Your task to perform on an android device: Clear the cart on target.com. Search for logitech g903 on target.com, select the first entry, and add it to the cart. Image 0: 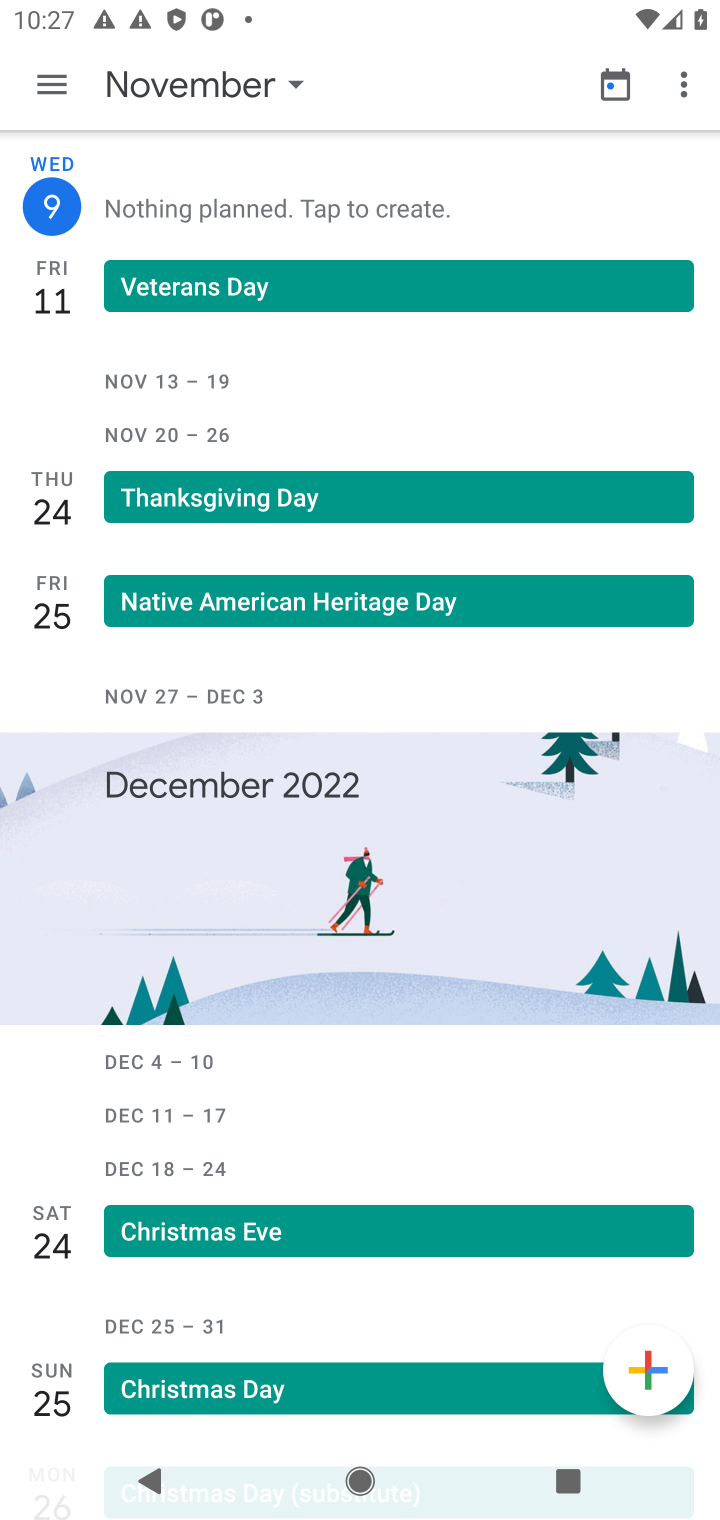
Step 0: press home button
Your task to perform on an android device: Clear the cart on target.com. Search for logitech g903 on target.com, select the first entry, and add it to the cart. Image 1: 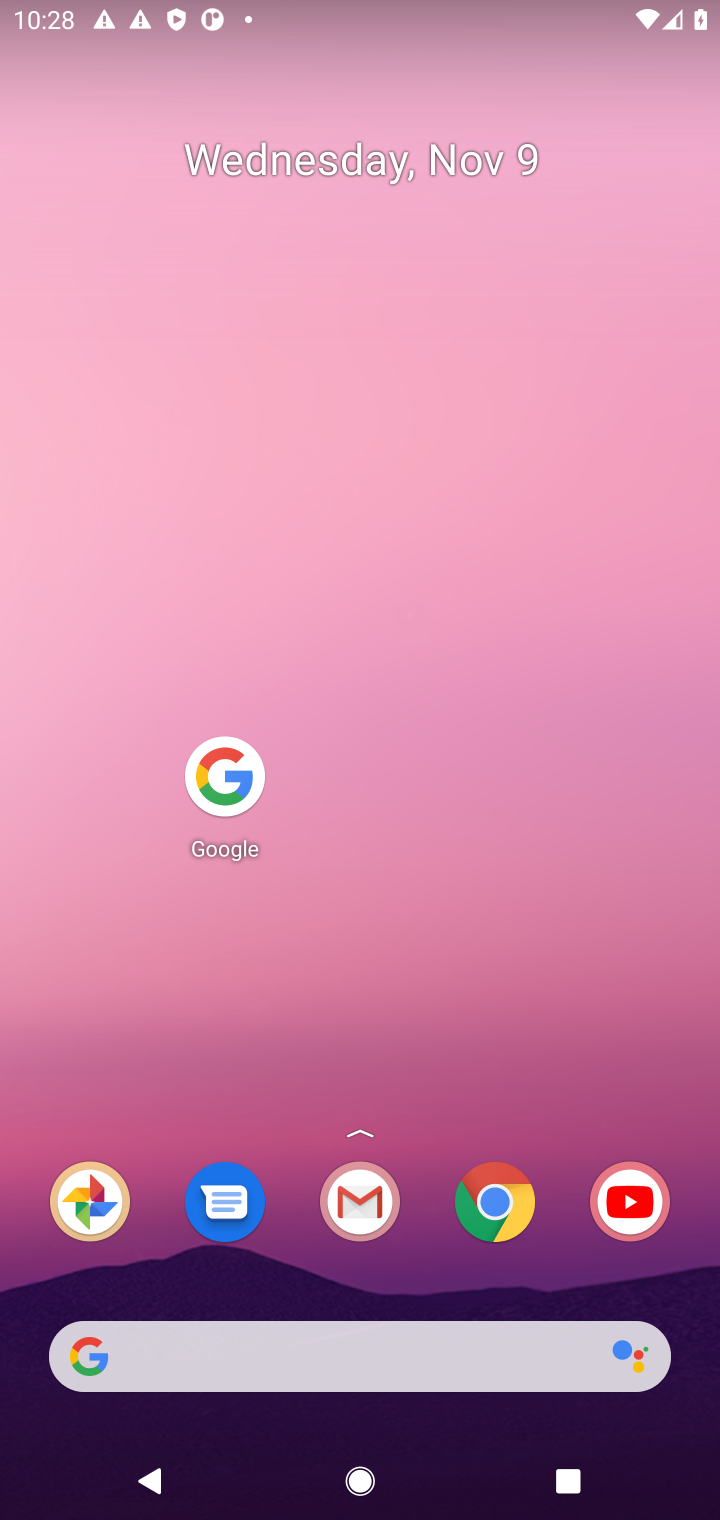
Step 1: click (229, 773)
Your task to perform on an android device: Clear the cart on target.com. Search for logitech g903 on target.com, select the first entry, and add it to the cart. Image 2: 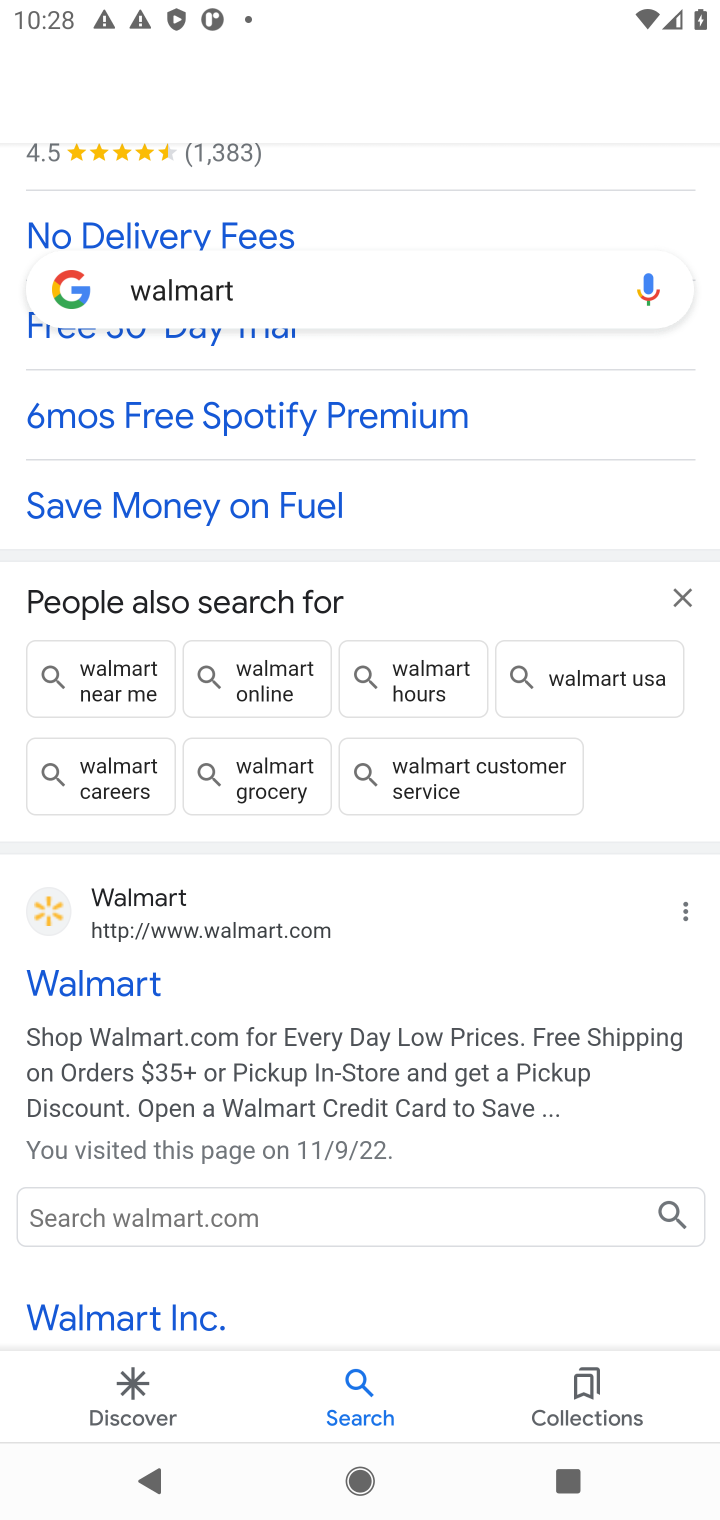
Step 2: drag from (400, 505) to (285, 1196)
Your task to perform on an android device: Clear the cart on target.com. Search for logitech g903 on target.com, select the first entry, and add it to the cart. Image 3: 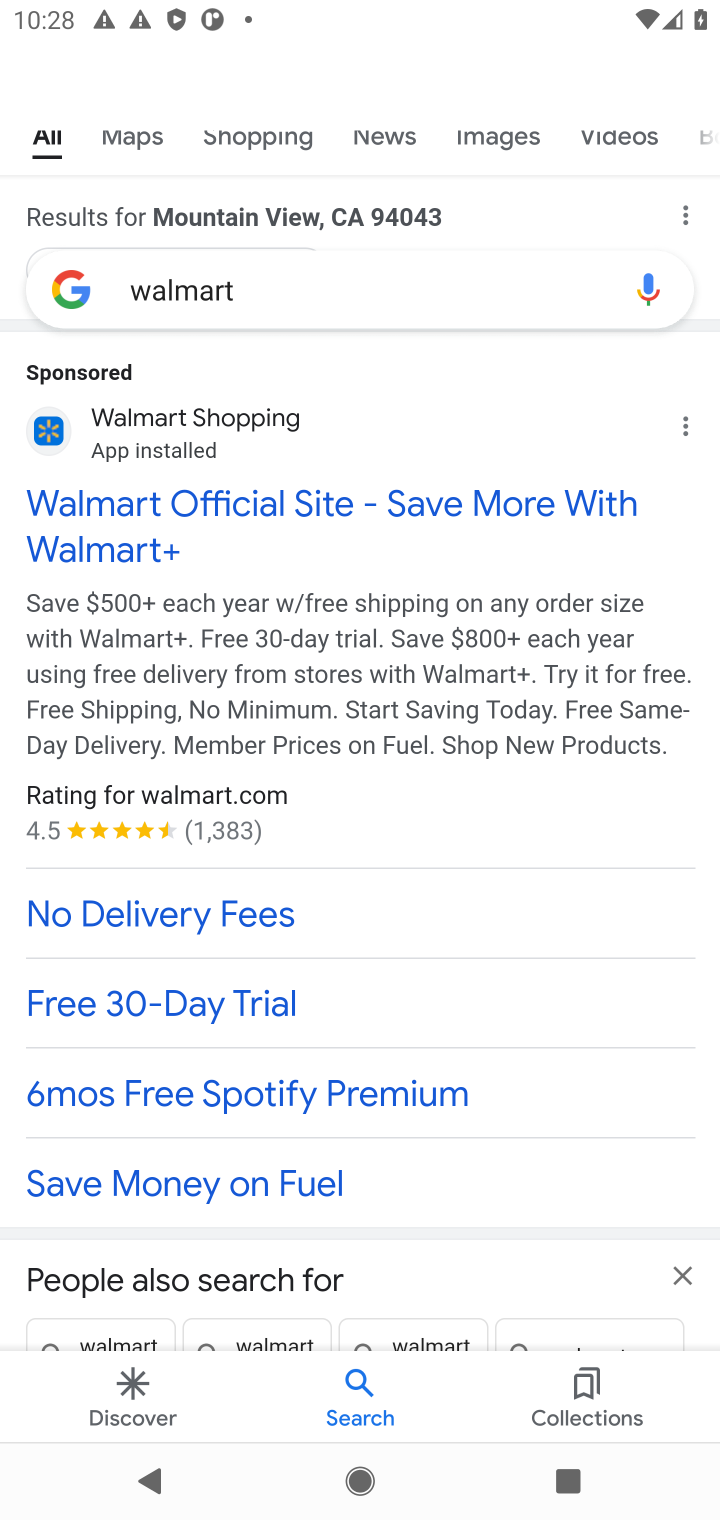
Step 3: drag from (361, 306) to (273, 936)
Your task to perform on an android device: Clear the cart on target.com. Search for logitech g903 on target.com, select the first entry, and add it to the cart. Image 4: 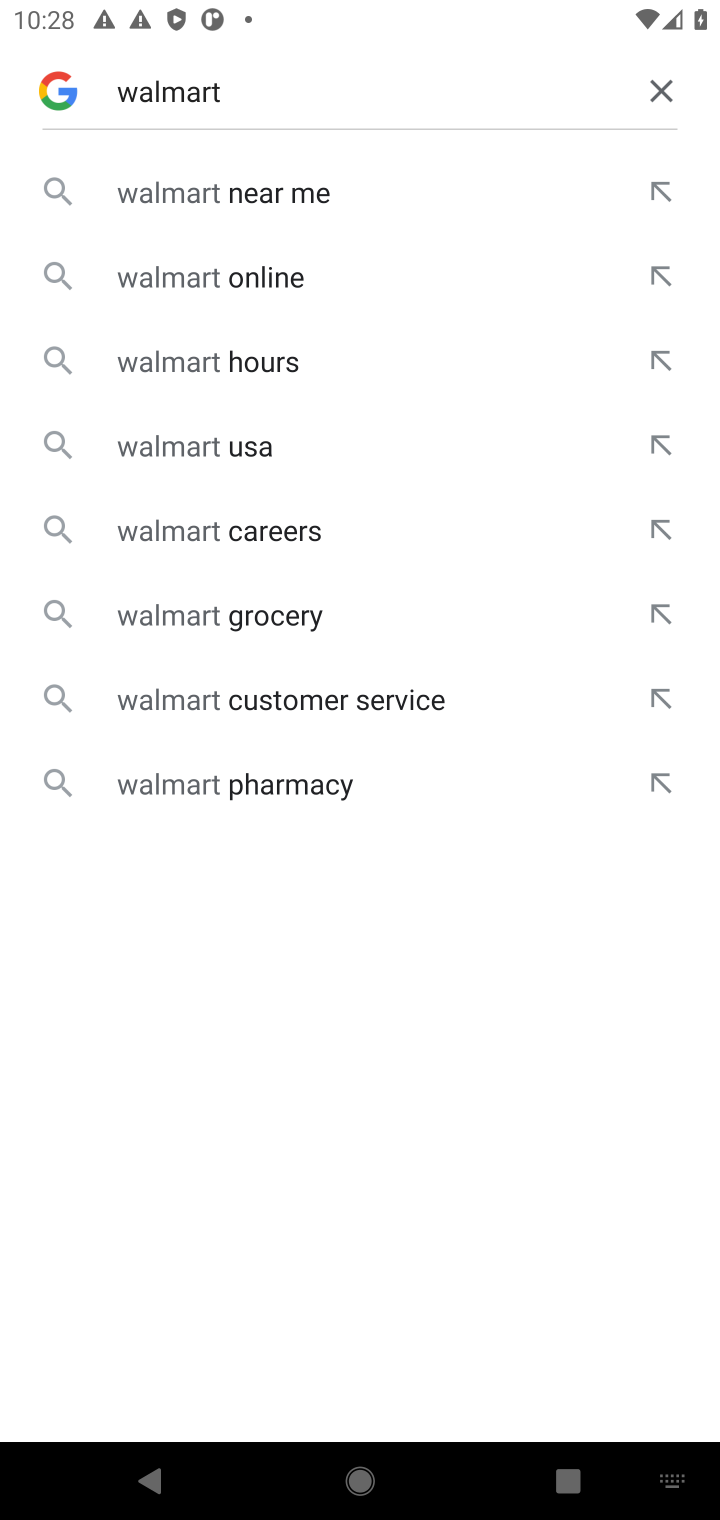
Step 4: click (648, 83)
Your task to perform on an android device: Clear the cart on target.com. Search for logitech g903 on target.com, select the first entry, and add it to the cart. Image 5: 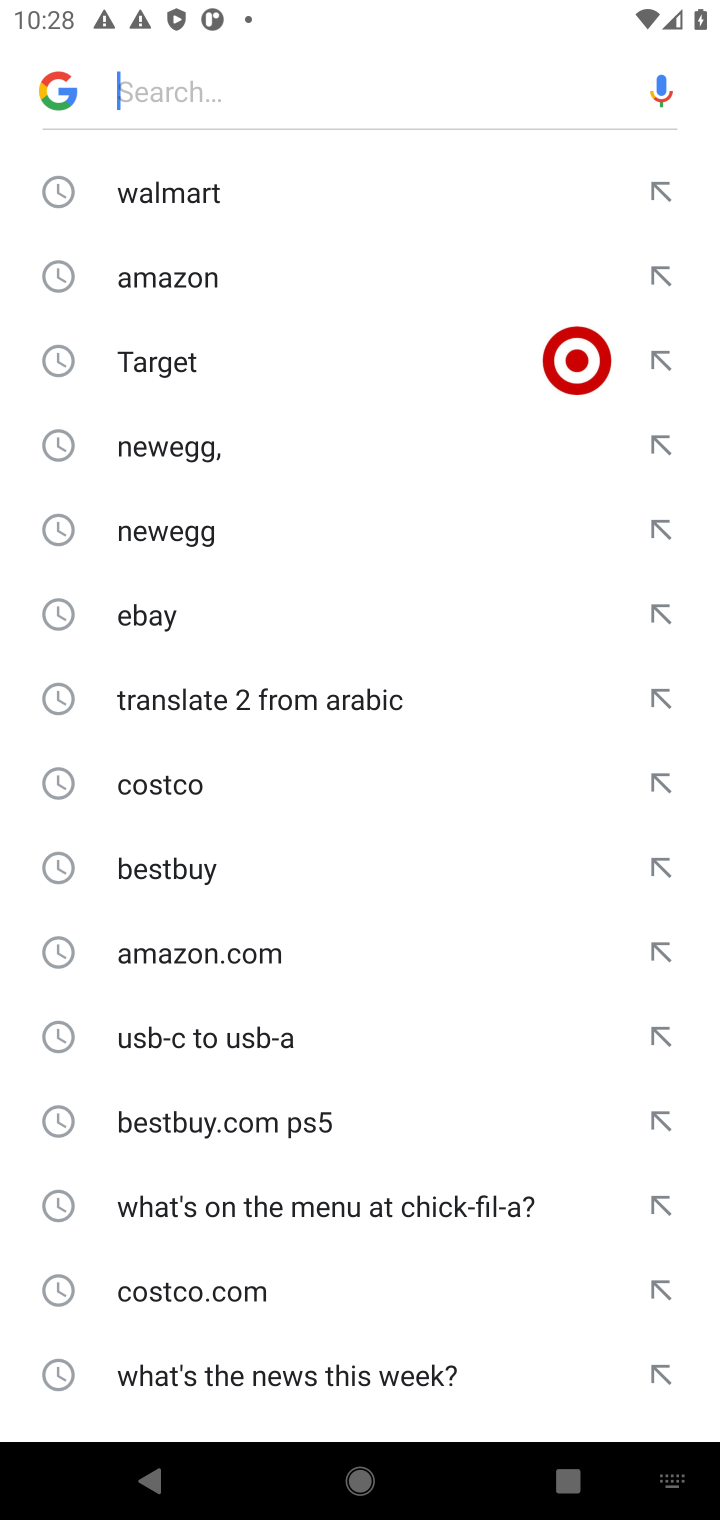
Step 5: click (157, 358)
Your task to perform on an android device: Clear the cart on target.com. Search for logitech g903 on target.com, select the first entry, and add it to the cart. Image 6: 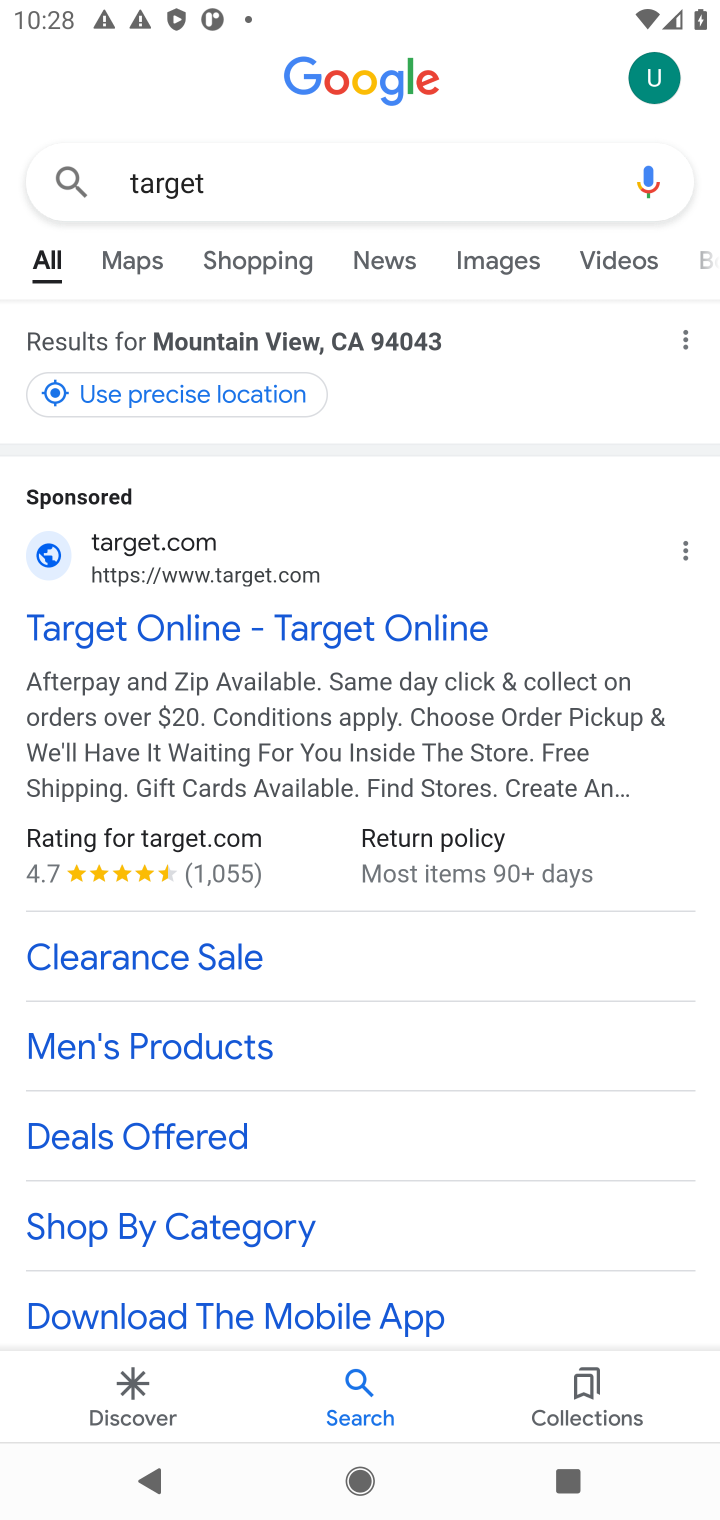
Step 6: click (214, 630)
Your task to perform on an android device: Clear the cart on target.com. Search for logitech g903 on target.com, select the first entry, and add it to the cart. Image 7: 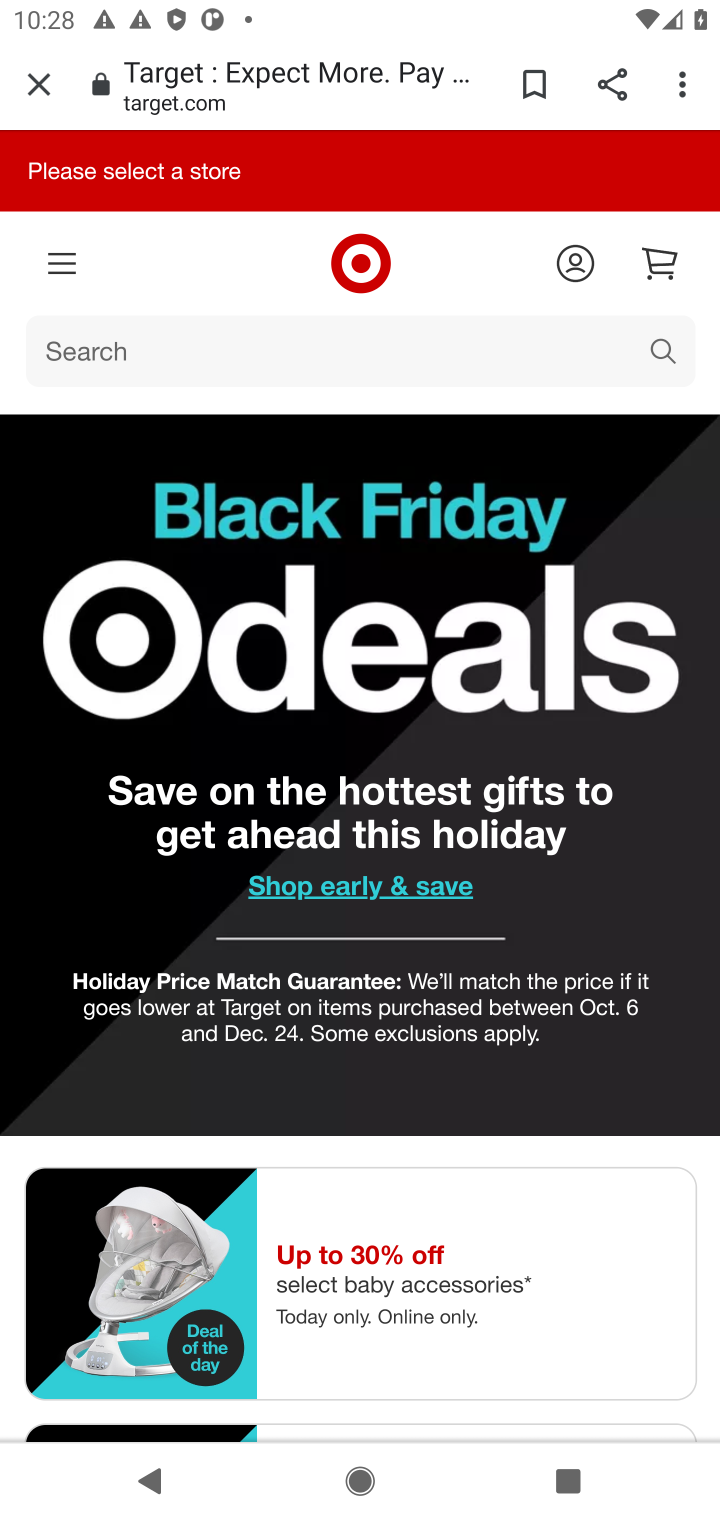
Step 7: click (111, 344)
Your task to perform on an android device: Clear the cart on target.com. Search for logitech g903 on target.com, select the first entry, and add it to the cart. Image 8: 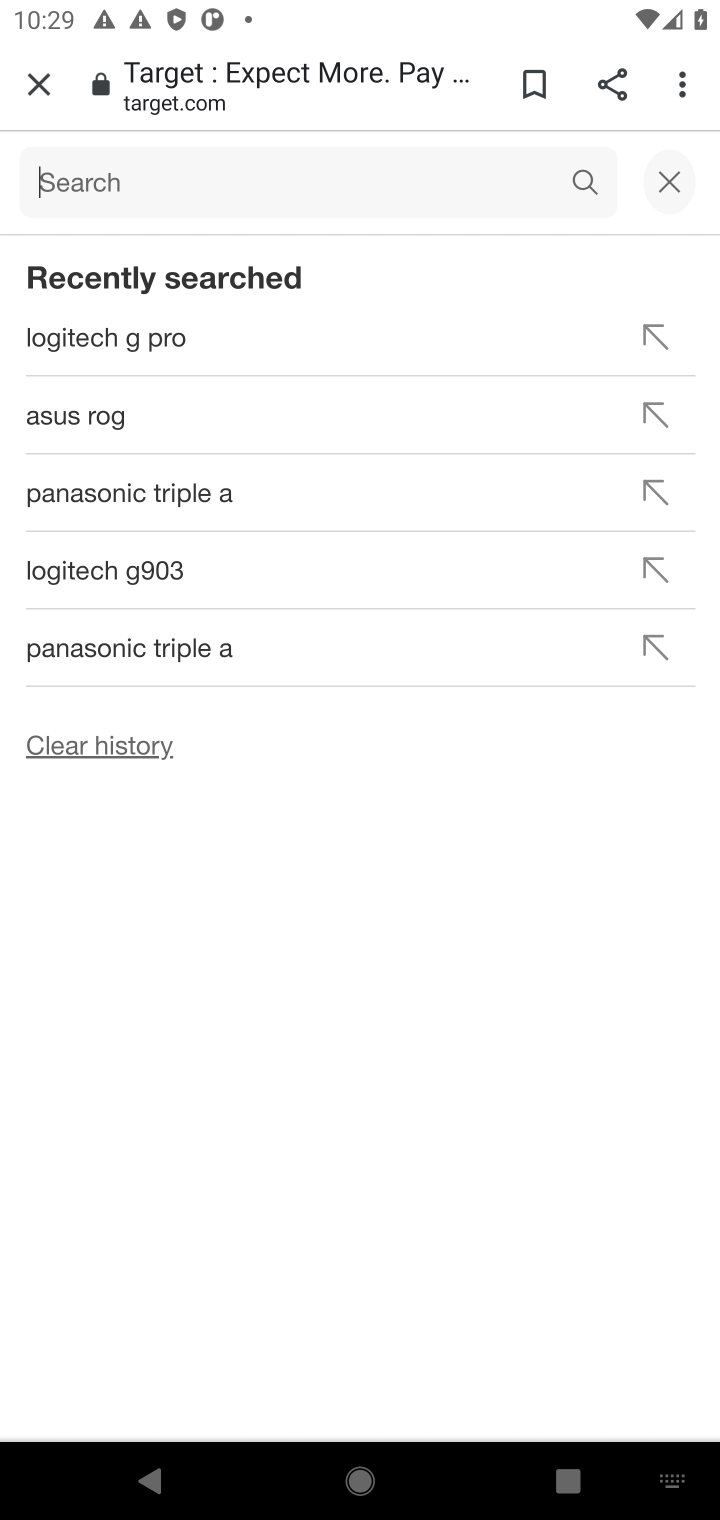
Step 8: type "logitech g903"
Your task to perform on an android device: Clear the cart on target.com. Search for logitech g903 on target.com, select the first entry, and add it to the cart. Image 9: 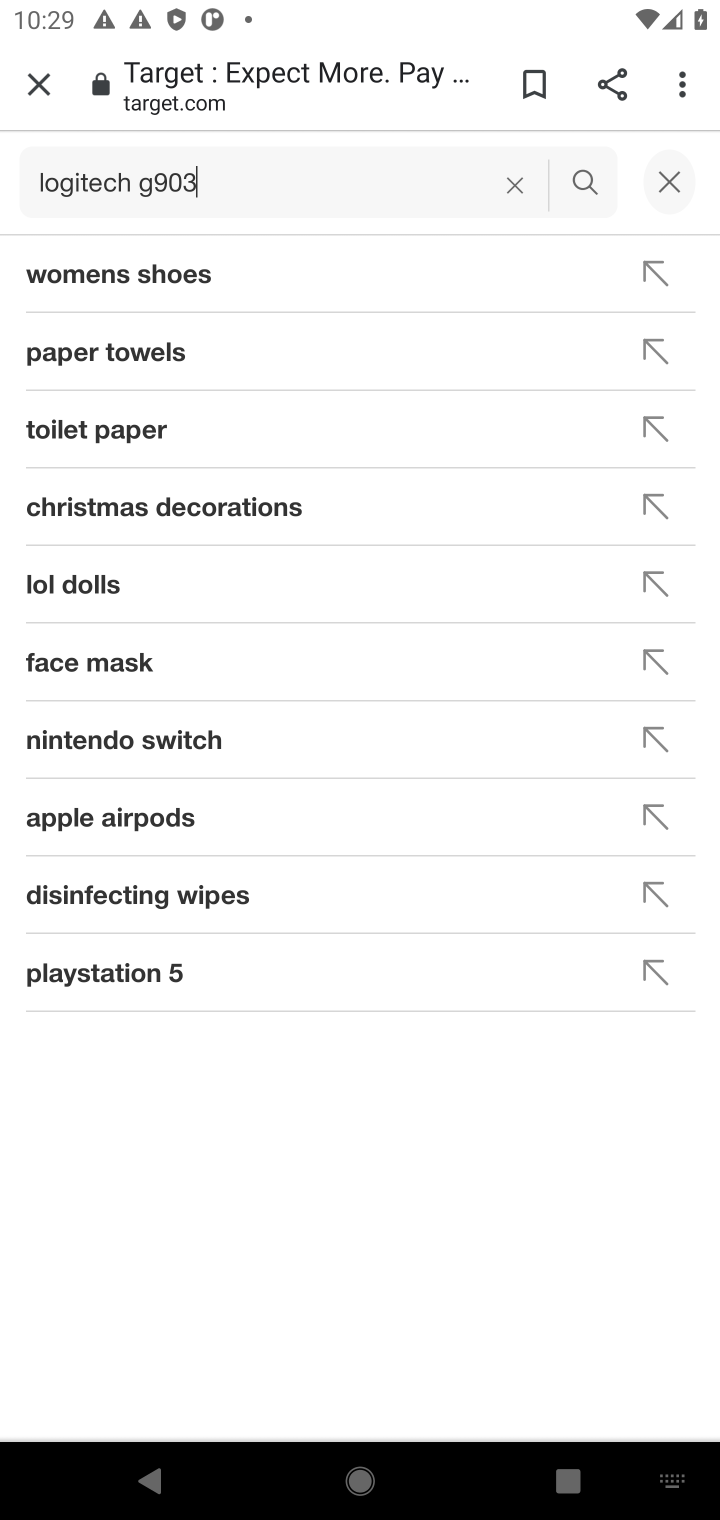
Step 9: press enter
Your task to perform on an android device: Clear the cart on target.com. Search for logitech g903 on target.com, select the first entry, and add it to the cart. Image 10: 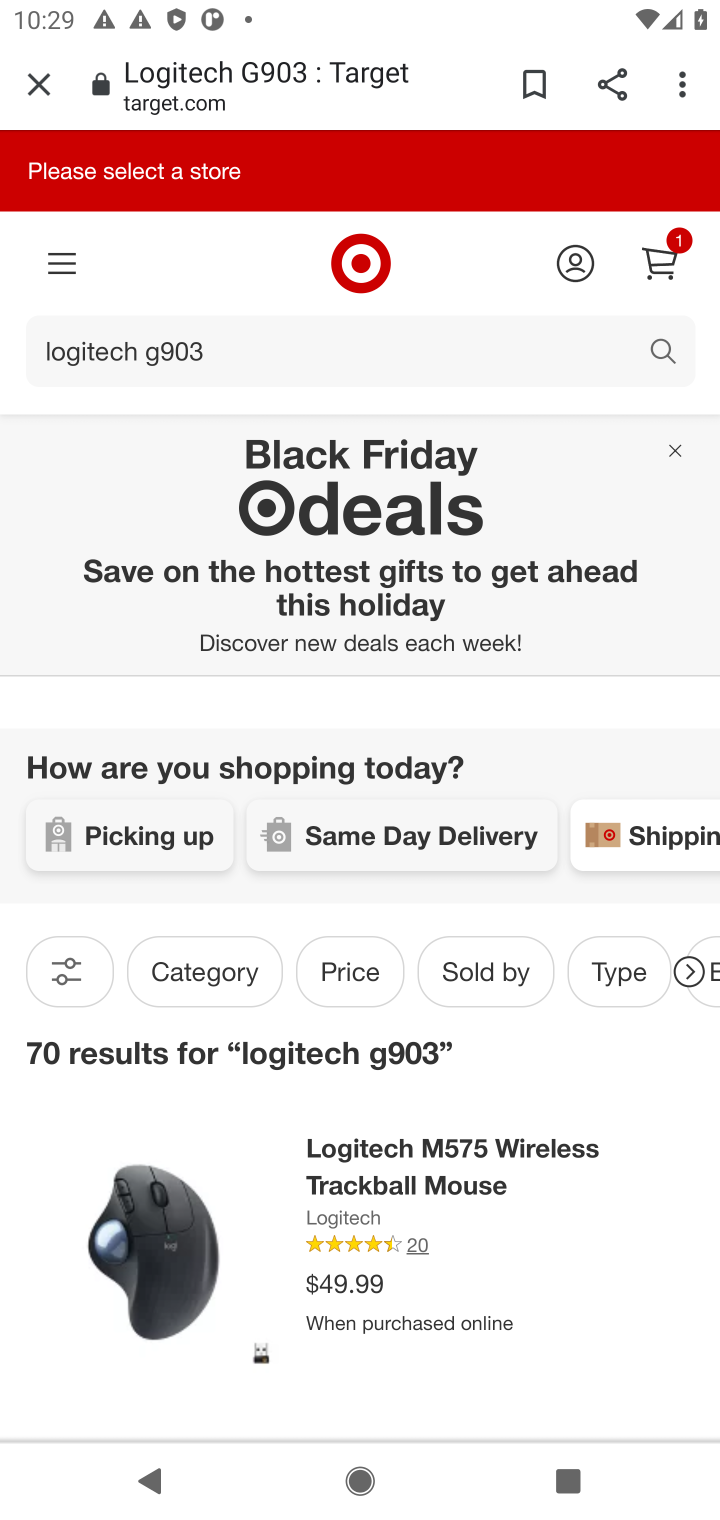
Step 10: task complete